Your task to perform on an android device: open the mobile data screen to see how much data has been used Image 0: 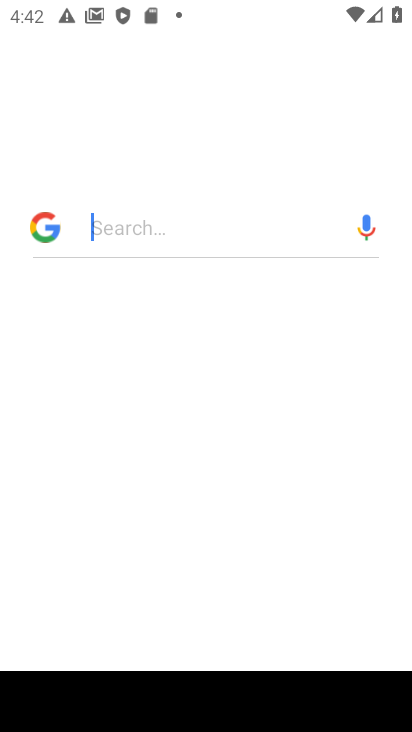
Step 0: press home button
Your task to perform on an android device: open the mobile data screen to see how much data has been used Image 1: 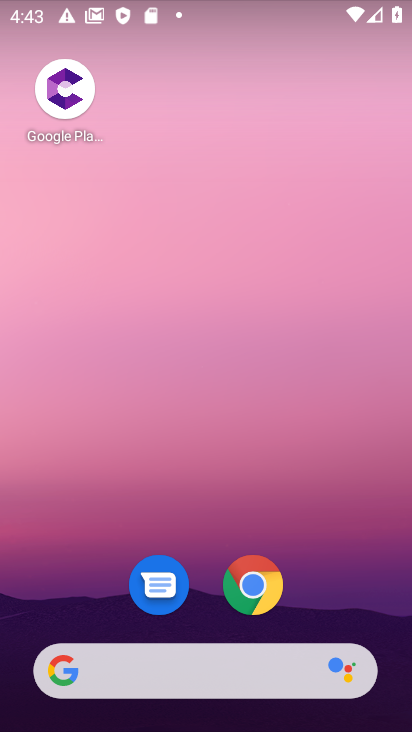
Step 1: drag from (202, 522) to (281, 1)
Your task to perform on an android device: open the mobile data screen to see how much data has been used Image 2: 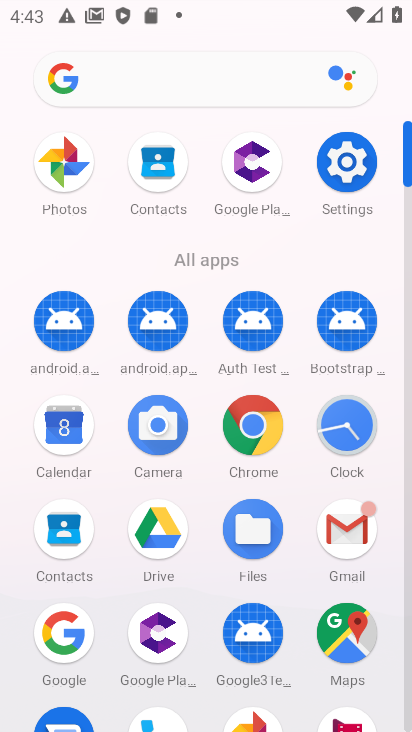
Step 2: click (347, 161)
Your task to perform on an android device: open the mobile data screen to see how much data has been used Image 3: 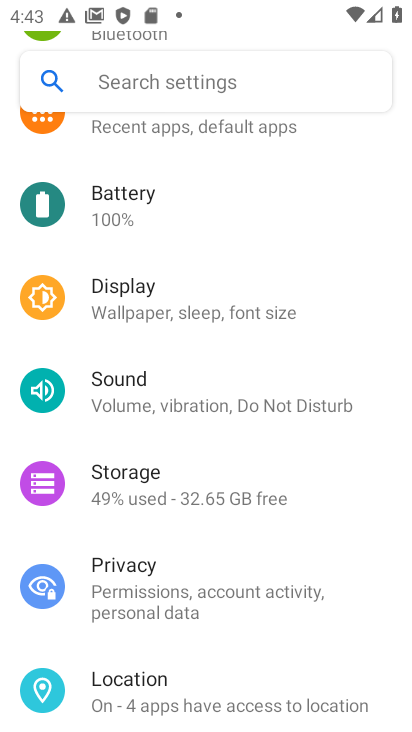
Step 3: drag from (263, 248) to (238, 623)
Your task to perform on an android device: open the mobile data screen to see how much data has been used Image 4: 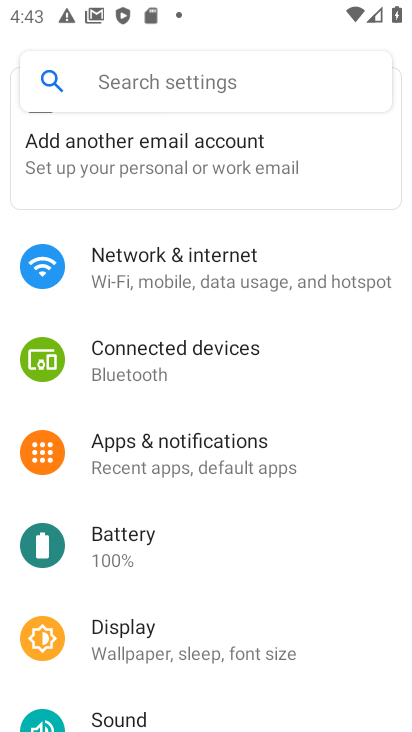
Step 4: click (224, 271)
Your task to perform on an android device: open the mobile data screen to see how much data has been used Image 5: 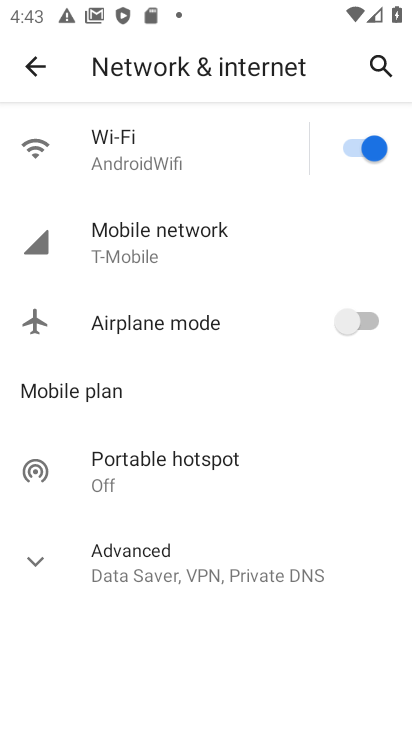
Step 5: click (221, 231)
Your task to perform on an android device: open the mobile data screen to see how much data has been used Image 6: 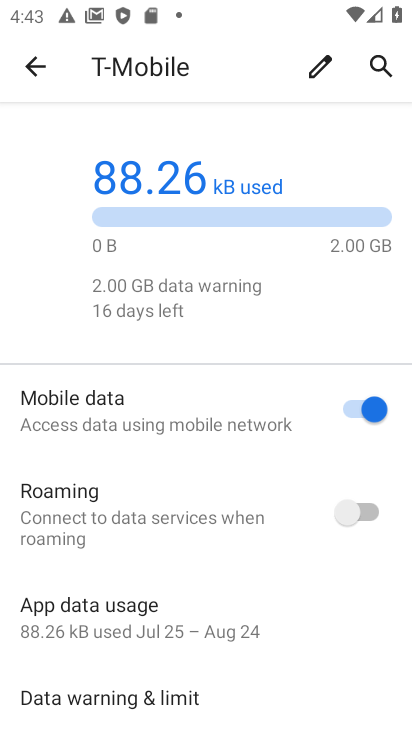
Step 6: task complete